Your task to perform on an android device: toggle javascript in the chrome app Image 0: 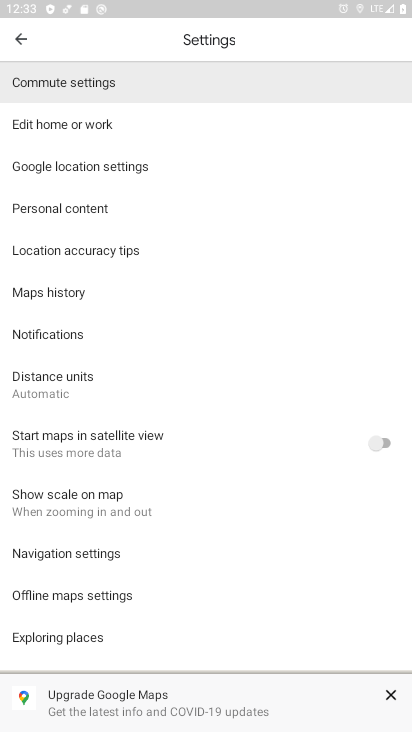
Step 0: press home button
Your task to perform on an android device: toggle javascript in the chrome app Image 1: 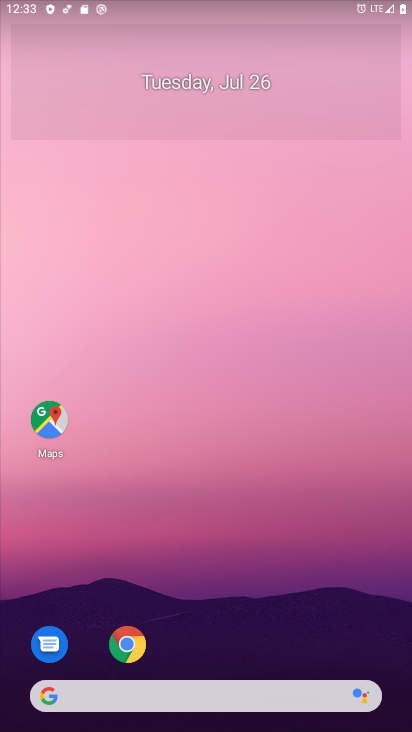
Step 1: click (125, 644)
Your task to perform on an android device: toggle javascript in the chrome app Image 2: 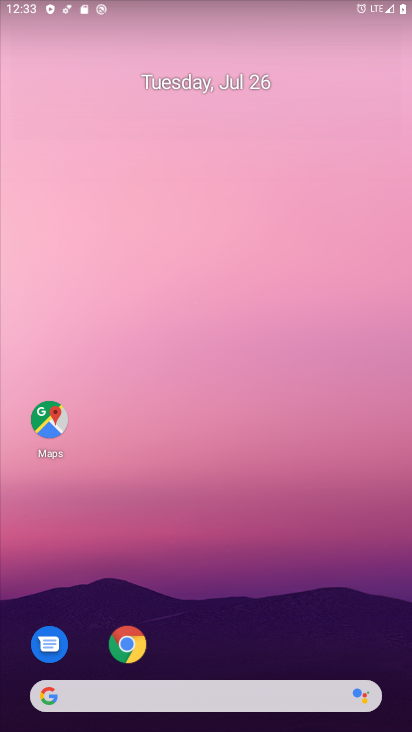
Step 2: click (125, 644)
Your task to perform on an android device: toggle javascript in the chrome app Image 3: 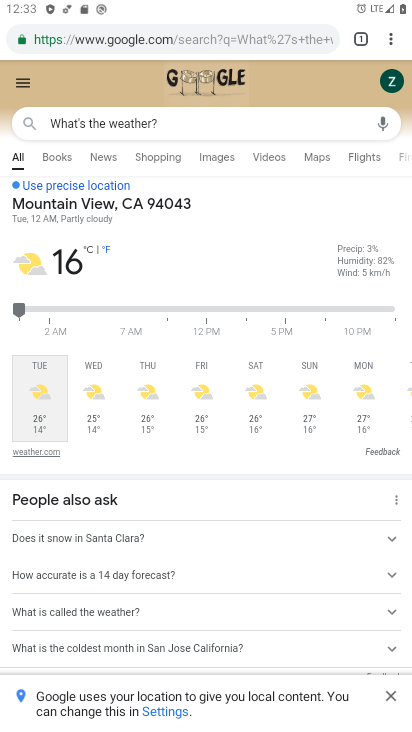
Step 3: click (384, 38)
Your task to perform on an android device: toggle javascript in the chrome app Image 4: 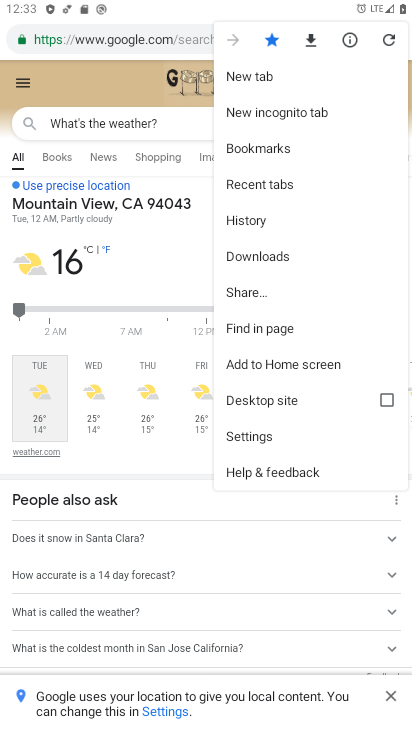
Step 4: click (241, 439)
Your task to perform on an android device: toggle javascript in the chrome app Image 5: 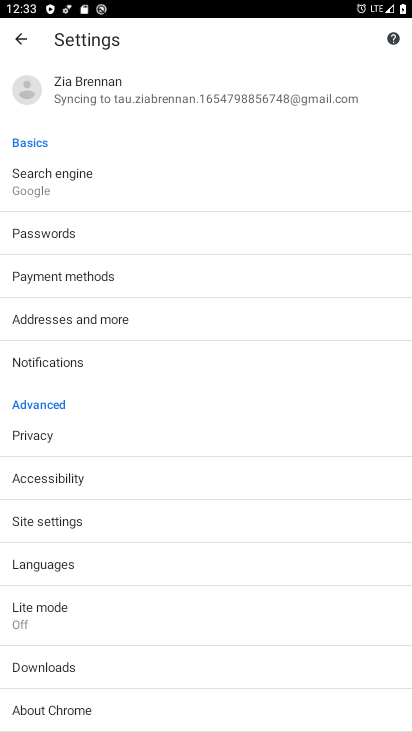
Step 5: click (95, 524)
Your task to perform on an android device: toggle javascript in the chrome app Image 6: 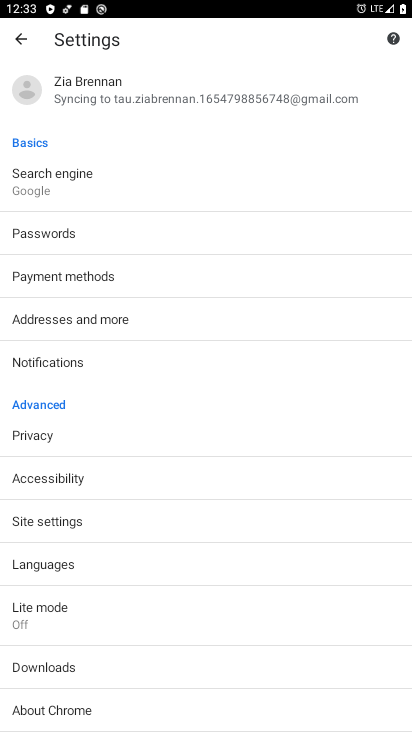
Step 6: click (95, 524)
Your task to perform on an android device: toggle javascript in the chrome app Image 7: 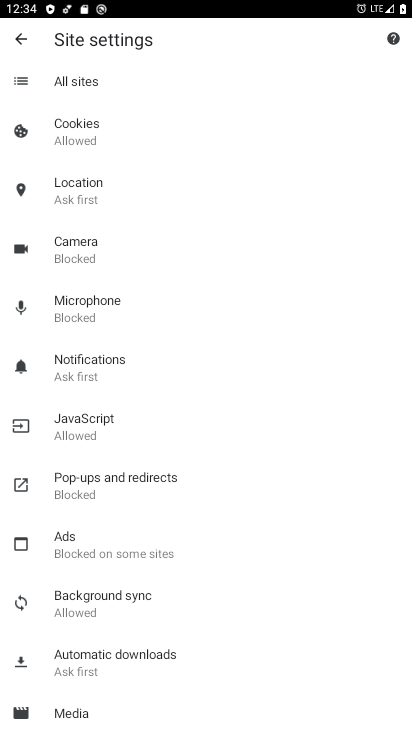
Step 7: click (96, 429)
Your task to perform on an android device: toggle javascript in the chrome app Image 8: 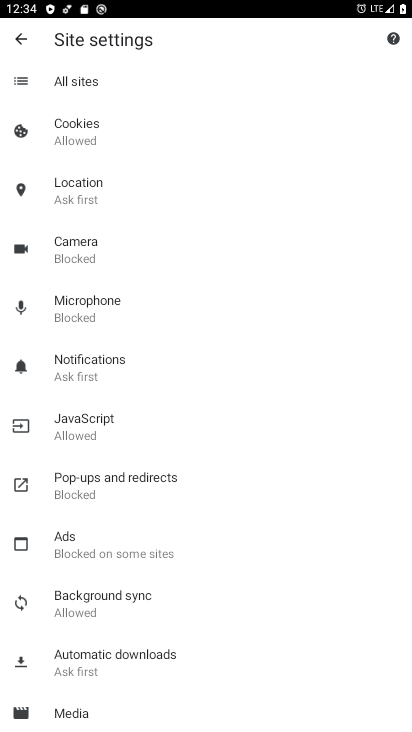
Step 8: click (96, 429)
Your task to perform on an android device: toggle javascript in the chrome app Image 9: 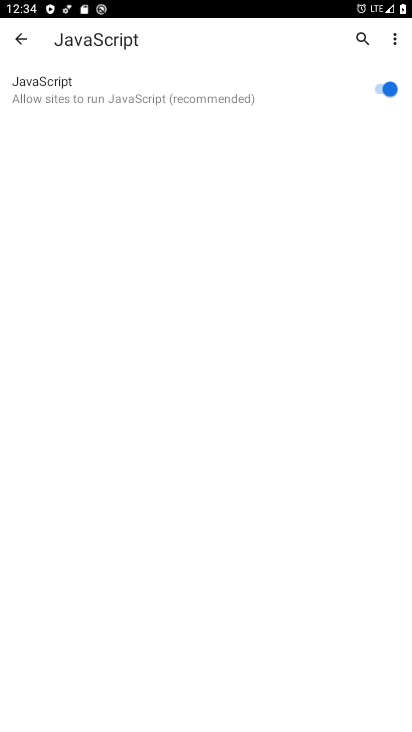
Step 9: click (386, 90)
Your task to perform on an android device: toggle javascript in the chrome app Image 10: 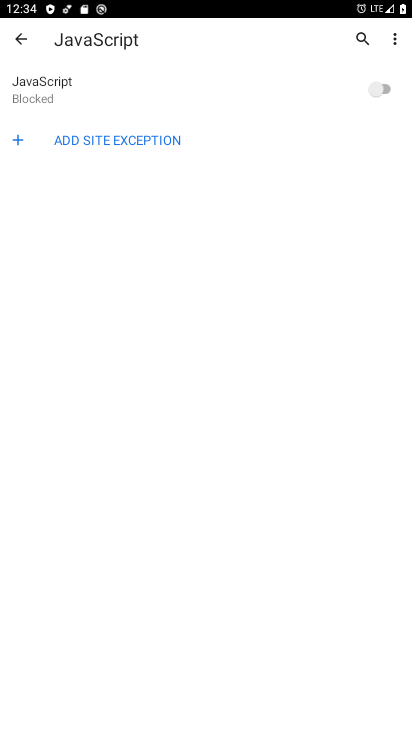
Step 10: task complete